Your task to perform on an android device: Open ESPN.com Image 0: 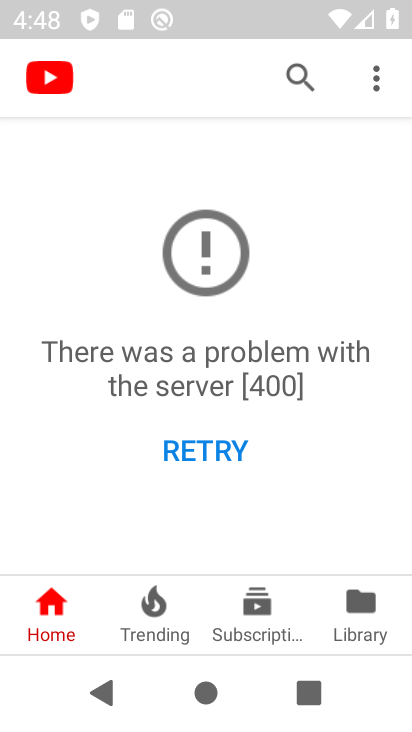
Step 0: press home button
Your task to perform on an android device: Open ESPN.com Image 1: 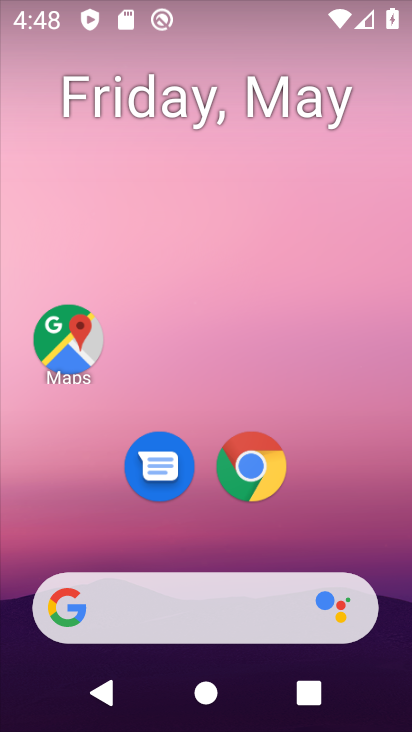
Step 1: click (255, 468)
Your task to perform on an android device: Open ESPN.com Image 2: 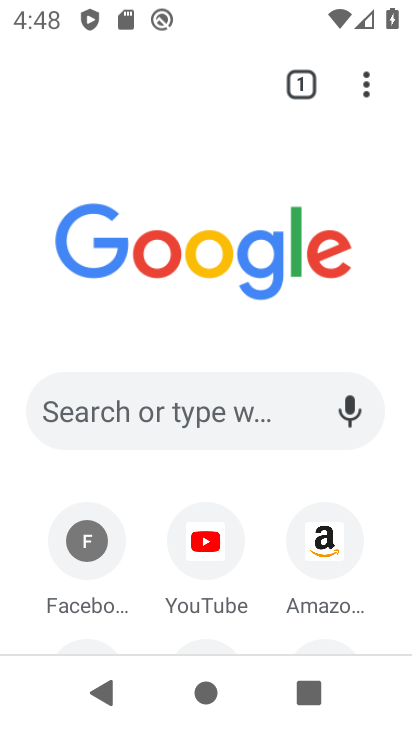
Step 2: click (210, 403)
Your task to perform on an android device: Open ESPN.com Image 3: 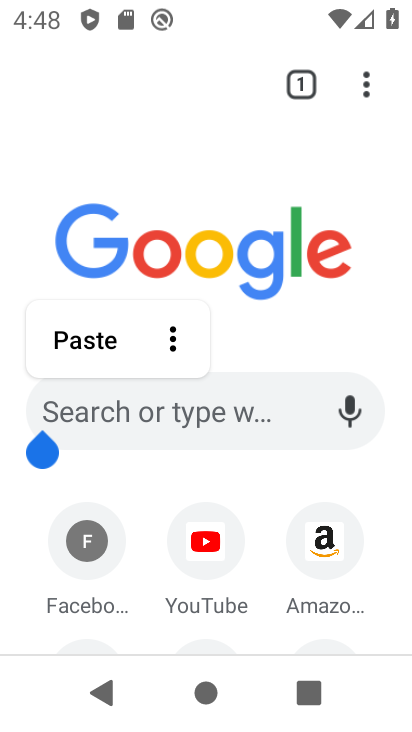
Step 3: click (66, 420)
Your task to perform on an android device: Open ESPN.com Image 4: 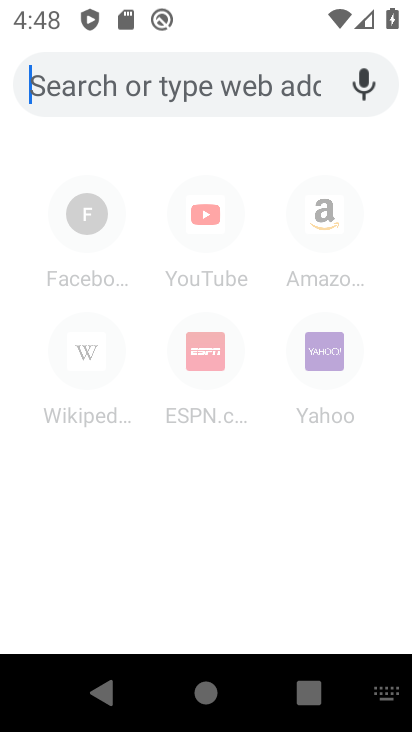
Step 4: type "ESPN.com"
Your task to perform on an android device: Open ESPN.com Image 5: 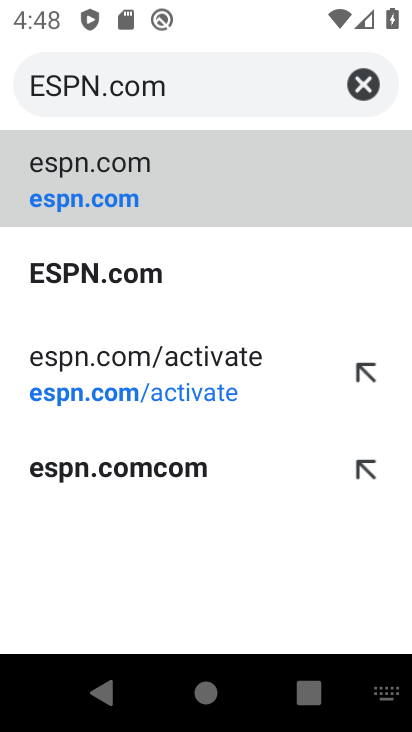
Step 5: click (72, 179)
Your task to perform on an android device: Open ESPN.com Image 6: 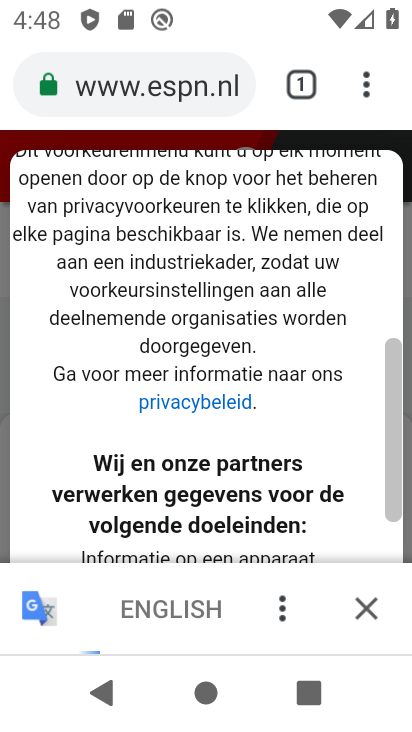
Step 6: task complete